Your task to perform on an android device: Open Google Chrome and open the bookmarks view Image 0: 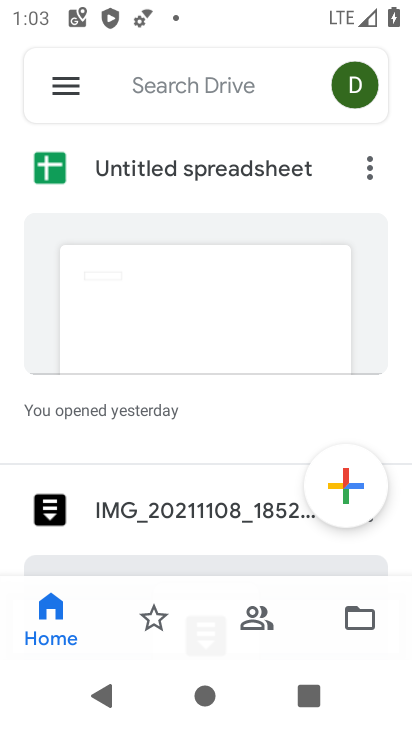
Step 0: press home button
Your task to perform on an android device: Open Google Chrome and open the bookmarks view Image 1: 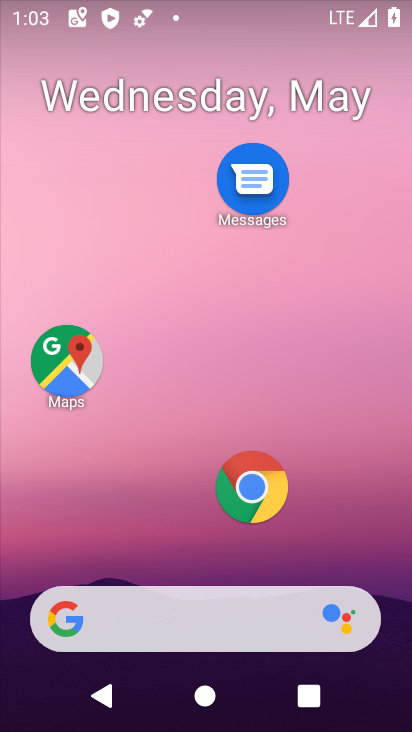
Step 1: click (288, 480)
Your task to perform on an android device: Open Google Chrome and open the bookmarks view Image 2: 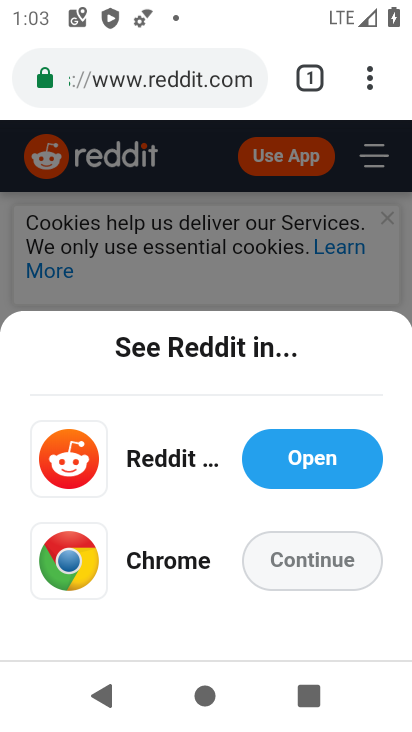
Step 2: click (370, 75)
Your task to perform on an android device: Open Google Chrome and open the bookmarks view Image 3: 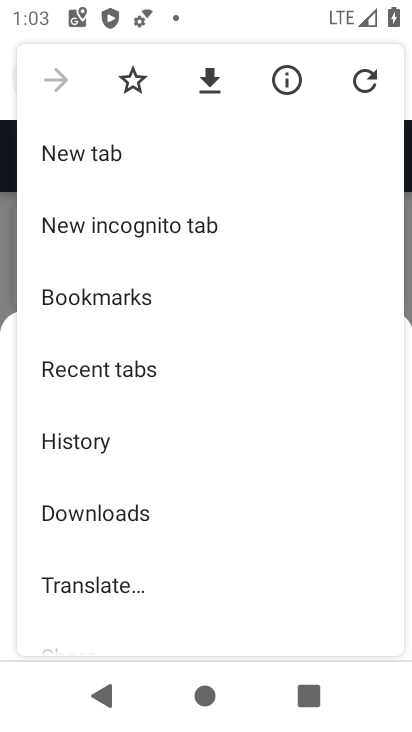
Step 3: click (126, 293)
Your task to perform on an android device: Open Google Chrome and open the bookmarks view Image 4: 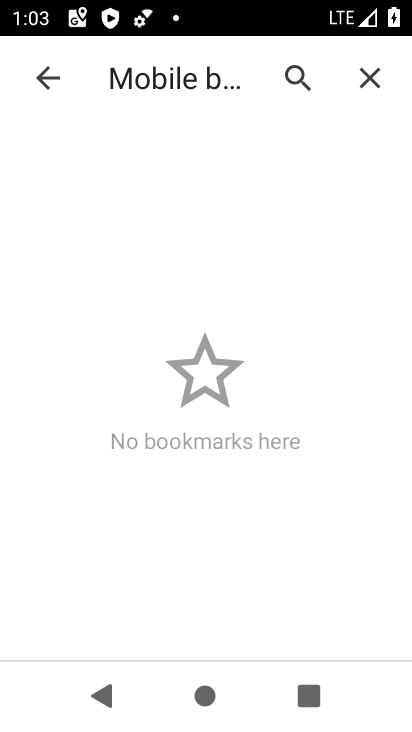
Step 4: task complete